Your task to perform on an android device: Open calendar and show me the third week of next month Image 0: 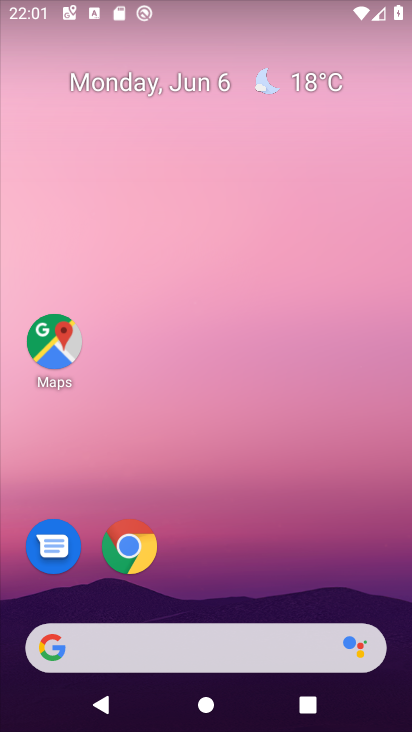
Step 0: drag from (377, 593) to (310, 7)
Your task to perform on an android device: Open calendar and show me the third week of next month Image 1: 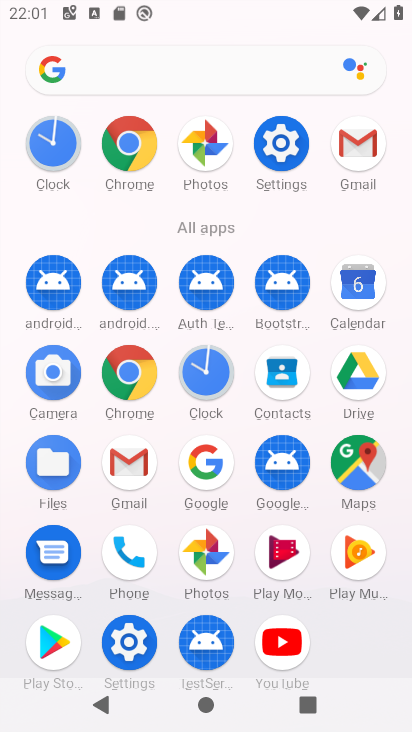
Step 1: click (355, 285)
Your task to perform on an android device: Open calendar and show me the third week of next month Image 2: 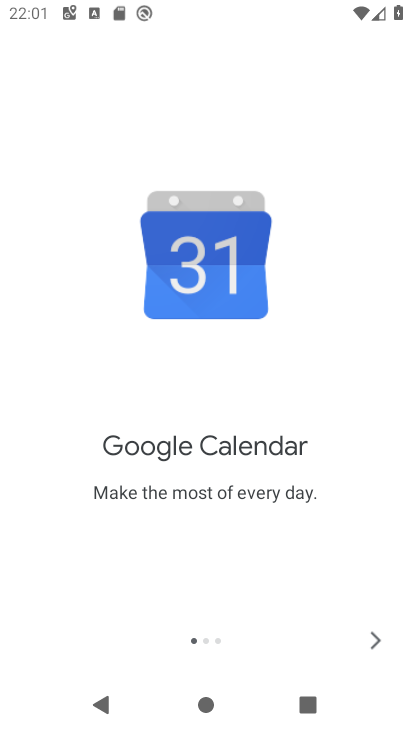
Step 2: click (375, 640)
Your task to perform on an android device: Open calendar and show me the third week of next month Image 3: 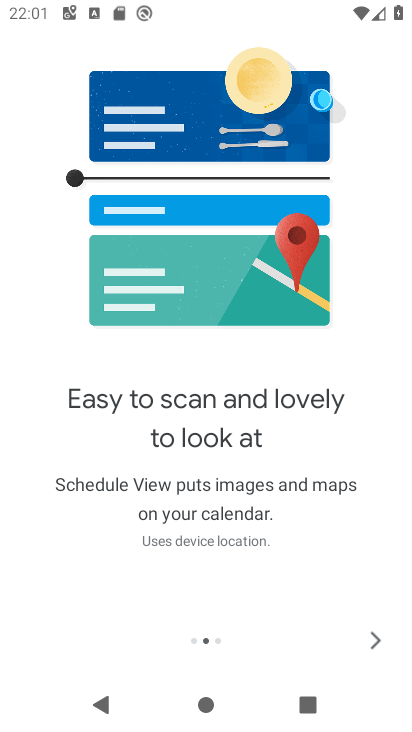
Step 3: click (375, 640)
Your task to perform on an android device: Open calendar and show me the third week of next month Image 4: 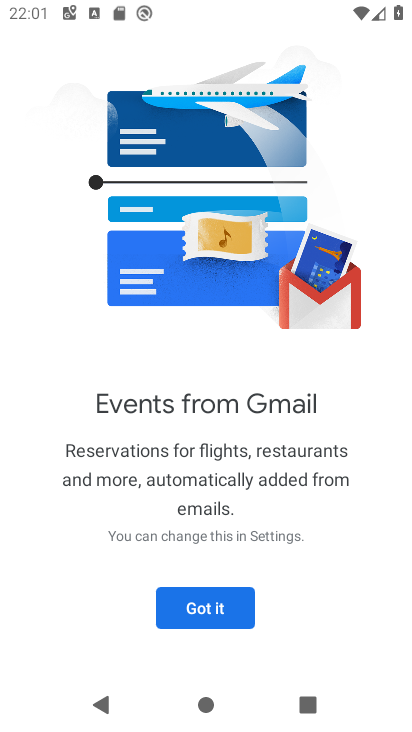
Step 4: click (184, 608)
Your task to perform on an android device: Open calendar and show me the third week of next month Image 5: 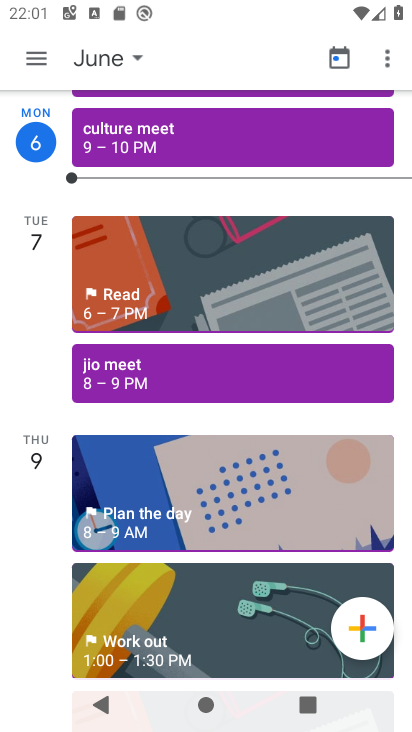
Step 5: click (34, 52)
Your task to perform on an android device: Open calendar and show me the third week of next month Image 6: 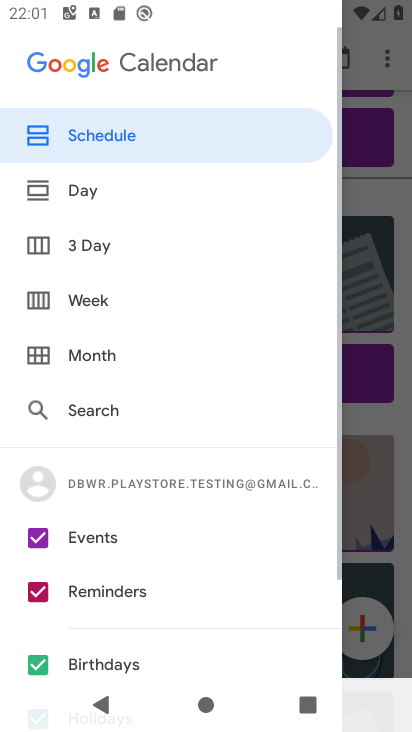
Step 6: click (84, 307)
Your task to perform on an android device: Open calendar and show me the third week of next month Image 7: 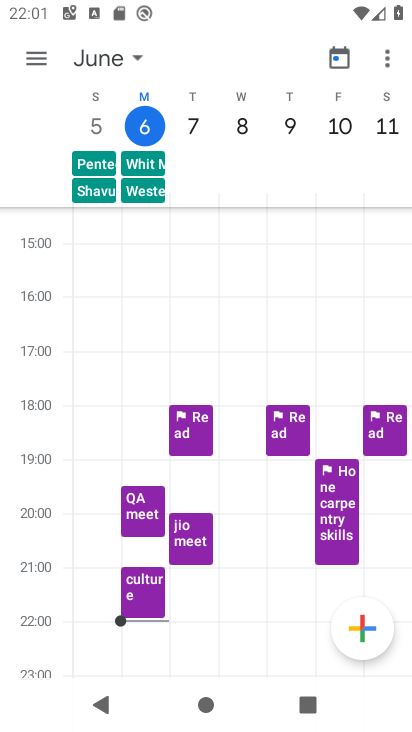
Step 7: click (127, 59)
Your task to perform on an android device: Open calendar and show me the third week of next month Image 8: 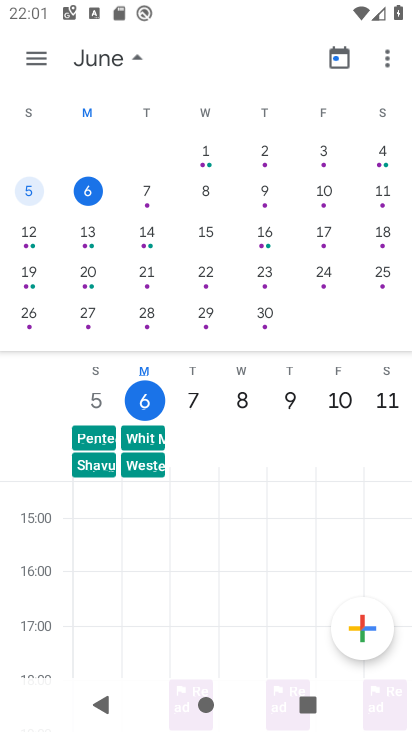
Step 8: drag from (372, 246) to (63, 232)
Your task to perform on an android device: Open calendar and show me the third week of next month Image 9: 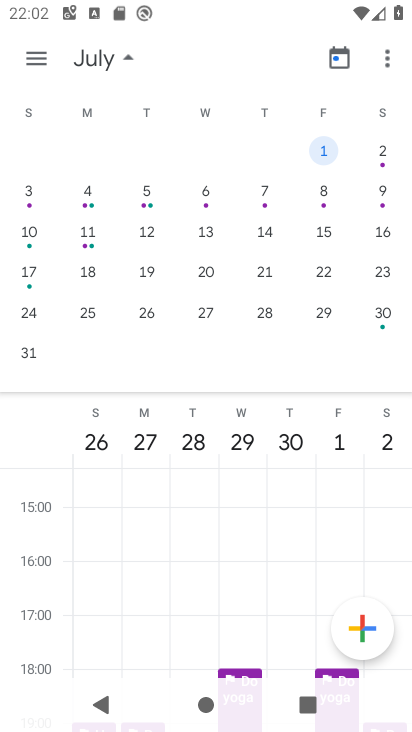
Step 9: click (28, 276)
Your task to perform on an android device: Open calendar and show me the third week of next month Image 10: 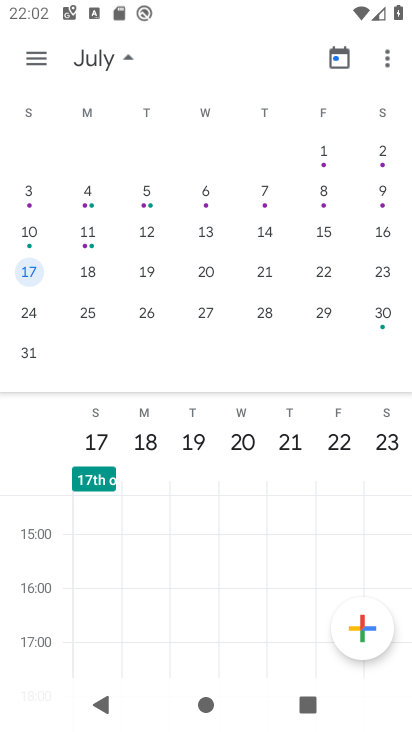
Step 10: task complete